Your task to perform on an android device: delete the emails in spam in the gmail app Image 0: 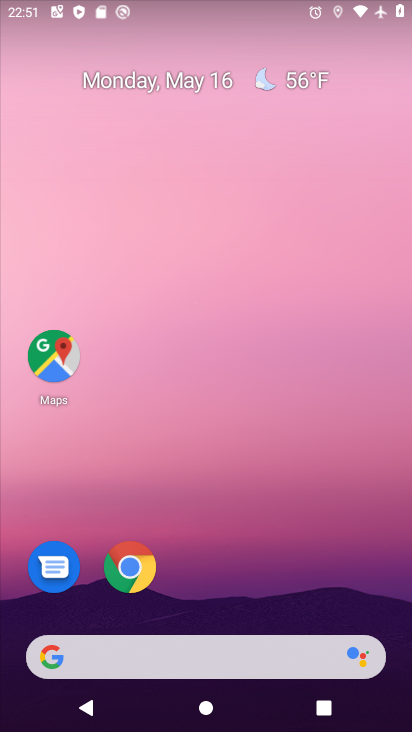
Step 0: drag from (161, 670) to (221, 286)
Your task to perform on an android device: delete the emails in spam in the gmail app Image 1: 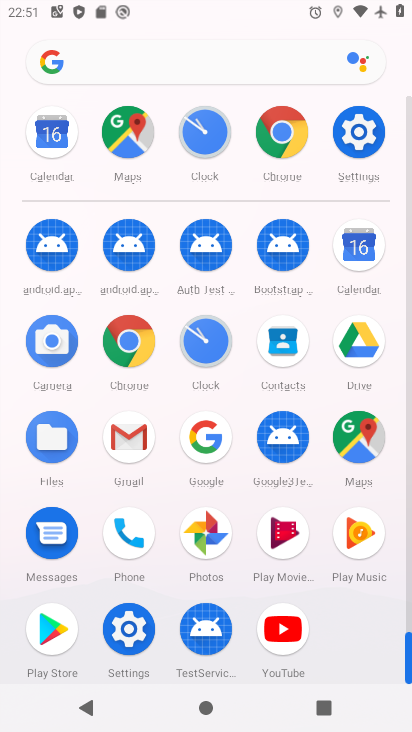
Step 1: click (134, 424)
Your task to perform on an android device: delete the emails in spam in the gmail app Image 2: 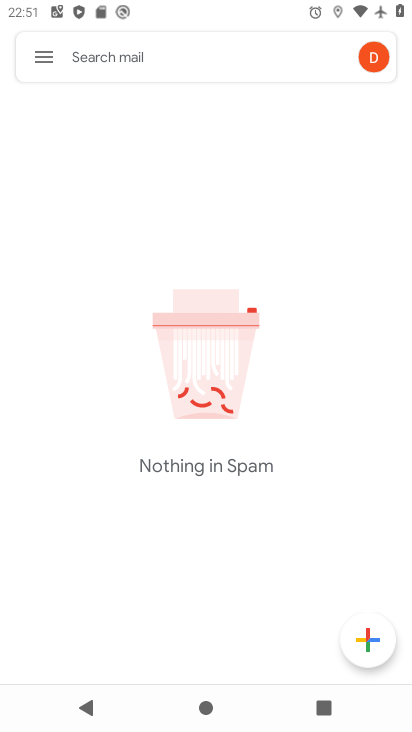
Step 2: click (38, 57)
Your task to perform on an android device: delete the emails in spam in the gmail app Image 3: 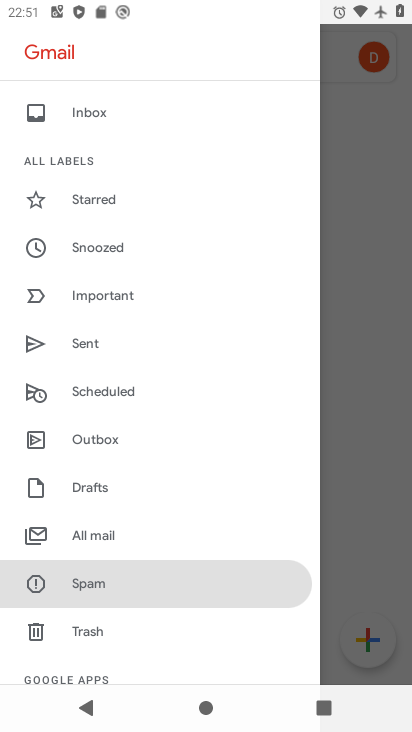
Step 3: click (96, 542)
Your task to perform on an android device: delete the emails in spam in the gmail app Image 4: 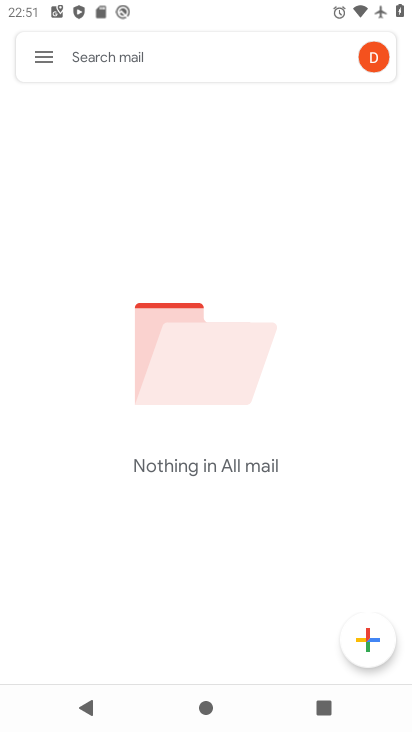
Step 4: task complete